Your task to perform on an android device: toggle data saver in the chrome app Image 0: 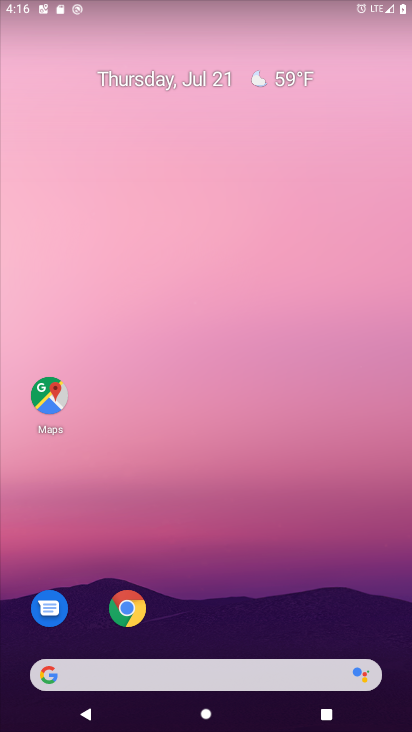
Step 0: drag from (290, 669) to (290, 68)
Your task to perform on an android device: toggle data saver in the chrome app Image 1: 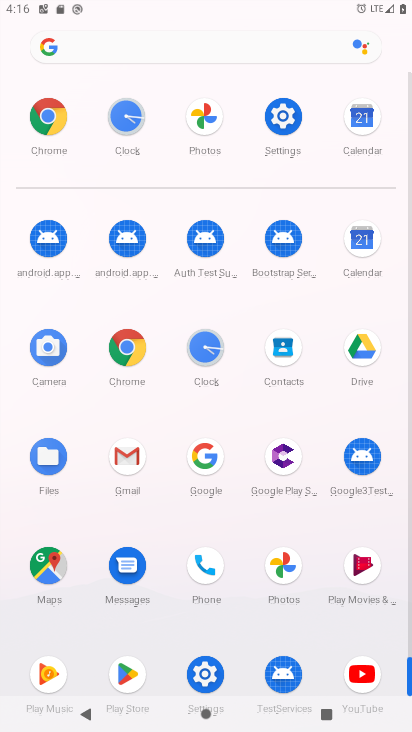
Step 1: click (134, 358)
Your task to perform on an android device: toggle data saver in the chrome app Image 2: 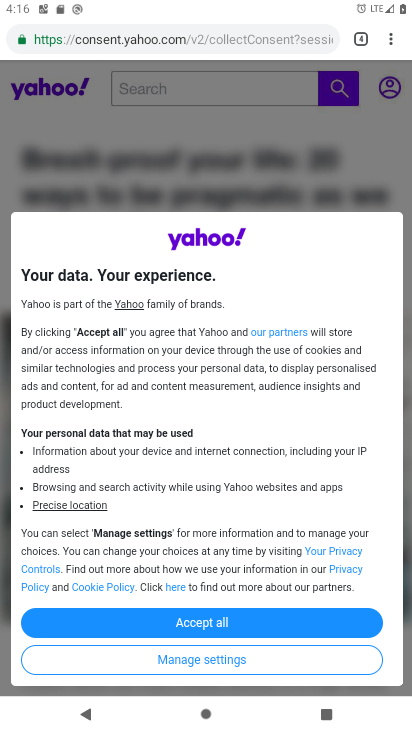
Step 2: drag from (389, 40) to (273, 463)
Your task to perform on an android device: toggle data saver in the chrome app Image 3: 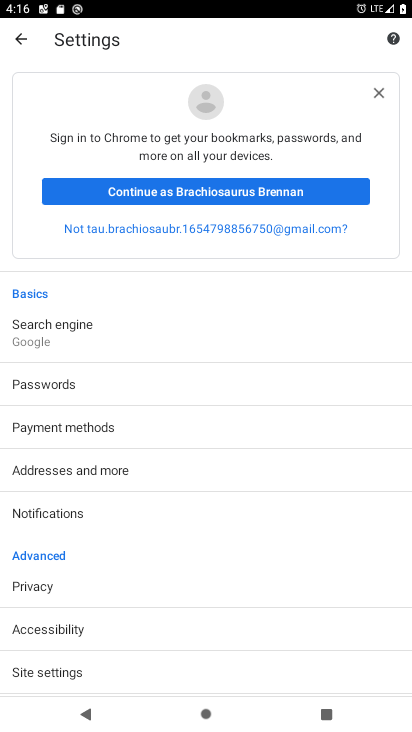
Step 3: drag from (113, 684) to (144, 278)
Your task to perform on an android device: toggle data saver in the chrome app Image 4: 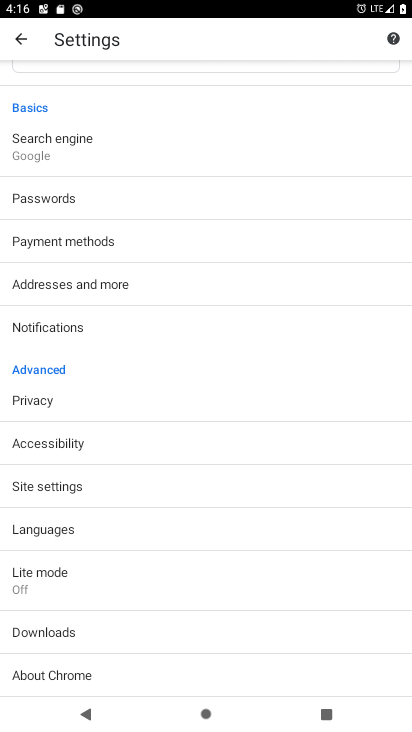
Step 4: click (83, 582)
Your task to perform on an android device: toggle data saver in the chrome app Image 5: 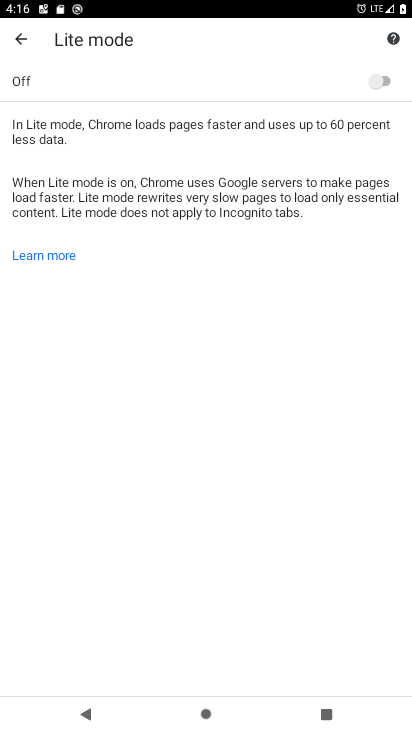
Step 5: click (387, 74)
Your task to perform on an android device: toggle data saver in the chrome app Image 6: 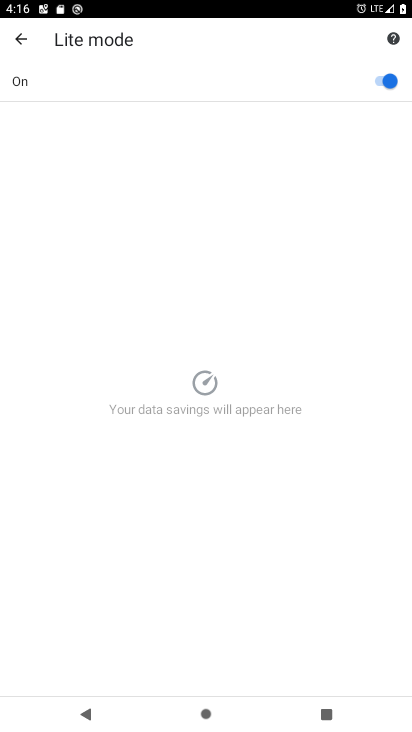
Step 6: task complete